Your task to perform on an android device: Open ESPN.com Image 0: 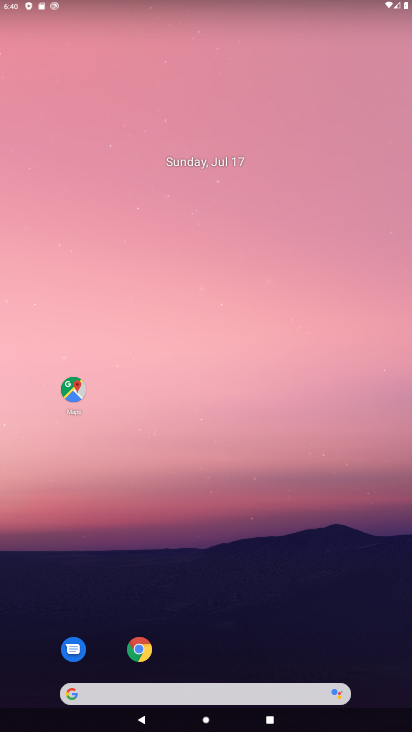
Step 0: click (140, 656)
Your task to perform on an android device: Open ESPN.com Image 1: 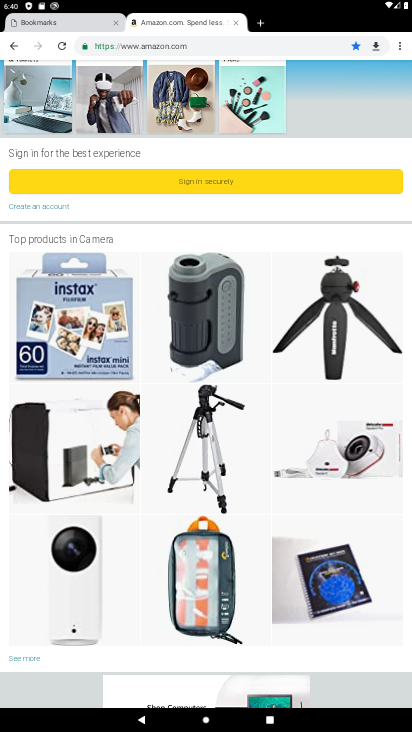
Step 1: click (400, 44)
Your task to perform on an android device: Open ESPN.com Image 2: 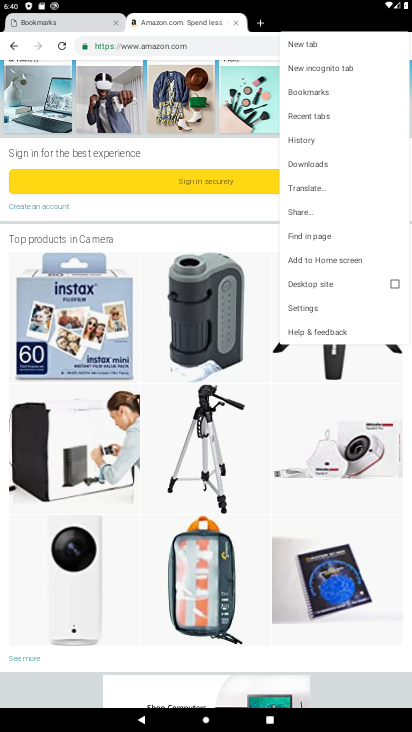
Step 2: click (307, 45)
Your task to perform on an android device: Open ESPN.com Image 3: 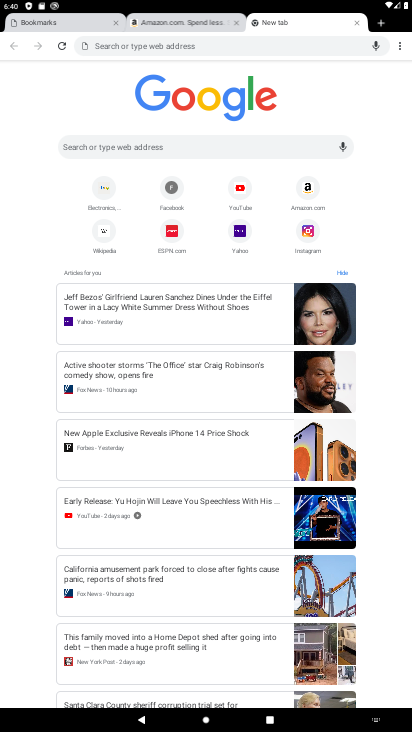
Step 3: click (168, 230)
Your task to perform on an android device: Open ESPN.com Image 4: 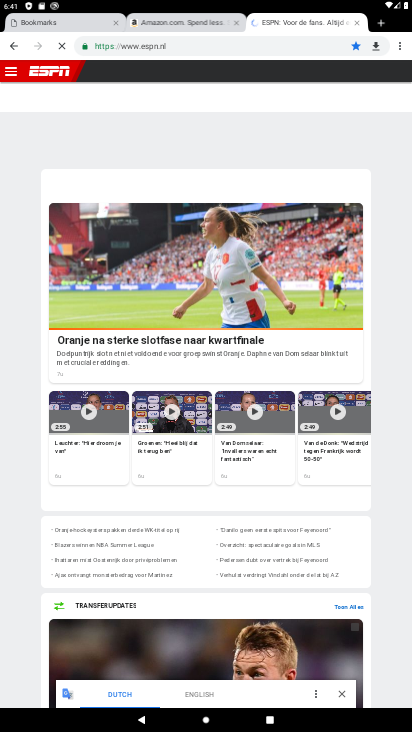
Step 4: task complete